Your task to perform on an android device: see sites visited before in the chrome app Image 0: 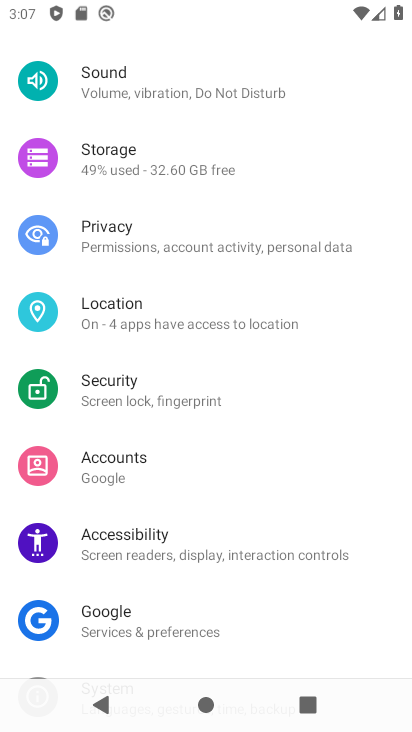
Step 0: press home button
Your task to perform on an android device: see sites visited before in the chrome app Image 1: 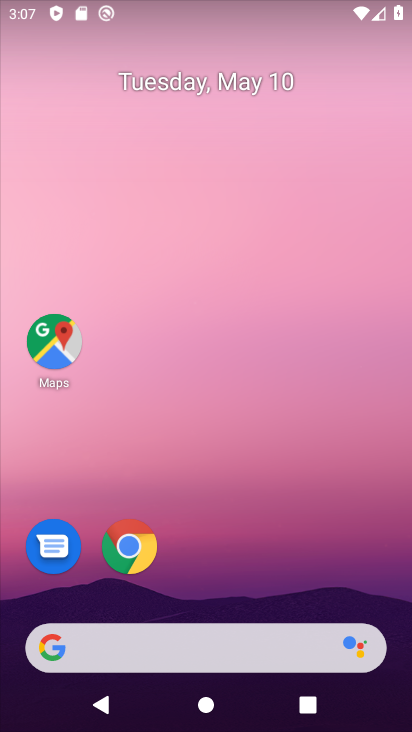
Step 1: click (132, 549)
Your task to perform on an android device: see sites visited before in the chrome app Image 2: 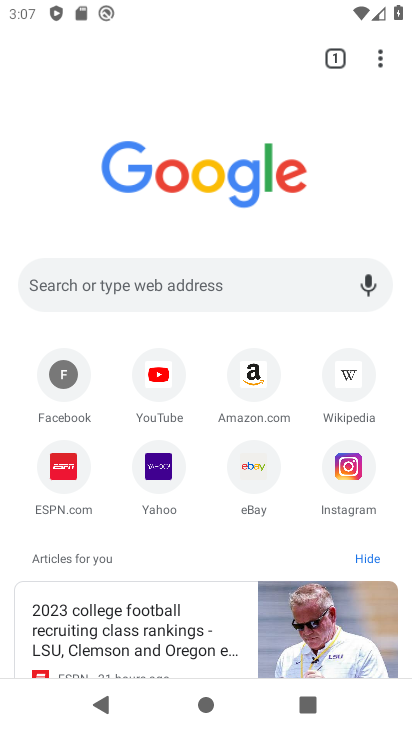
Step 2: click (383, 59)
Your task to perform on an android device: see sites visited before in the chrome app Image 3: 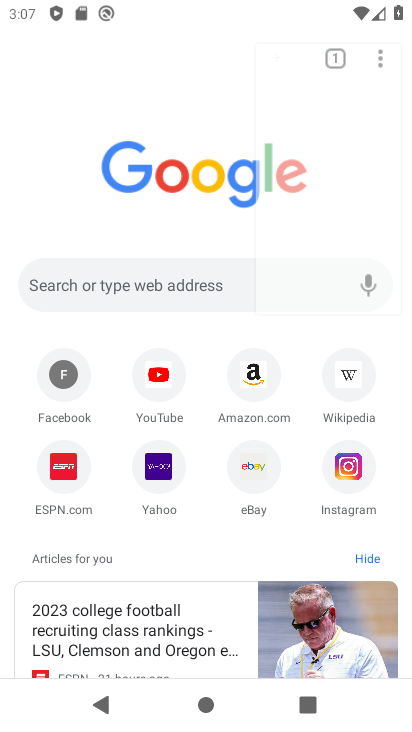
Step 3: click (383, 59)
Your task to perform on an android device: see sites visited before in the chrome app Image 4: 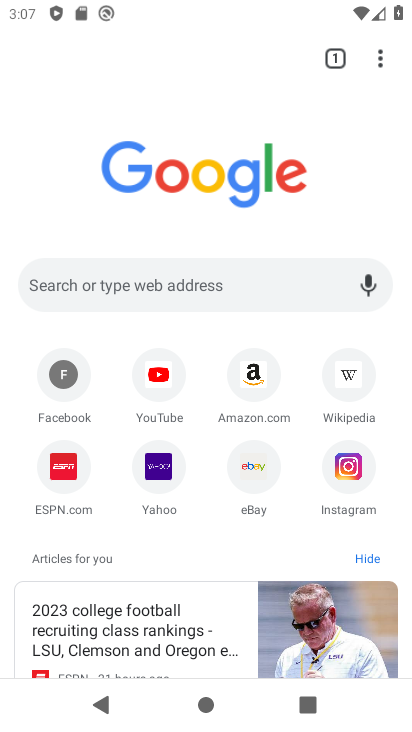
Step 4: click (391, 53)
Your task to perform on an android device: see sites visited before in the chrome app Image 5: 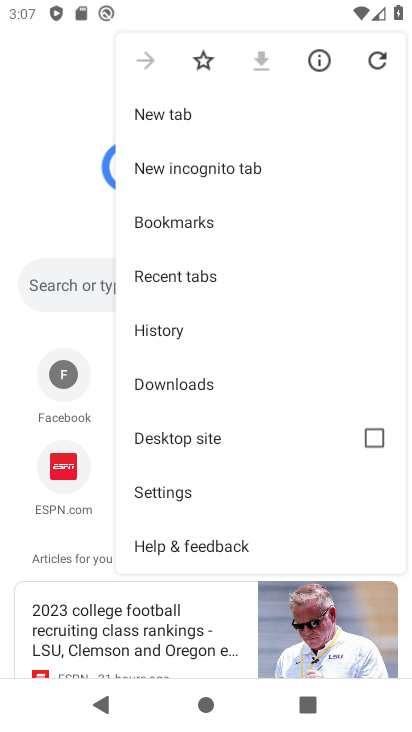
Step 5: click (171, 336)
Your task to perform on an android device: see sites visited before in the chrome app Image 6: 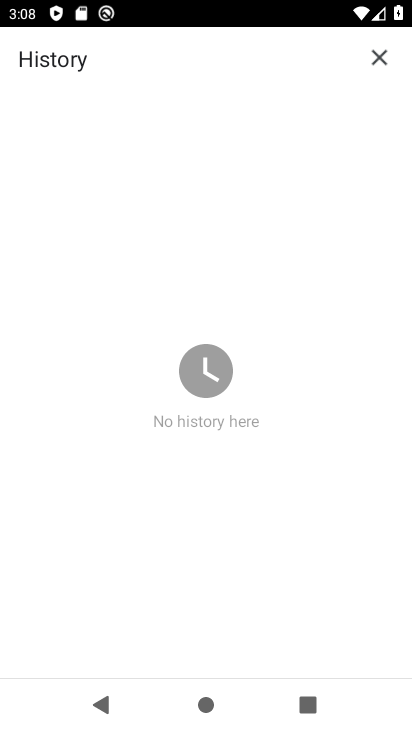
Step 6: task complete